Your task to perform on an android device: turn off airplane mode Image 0: 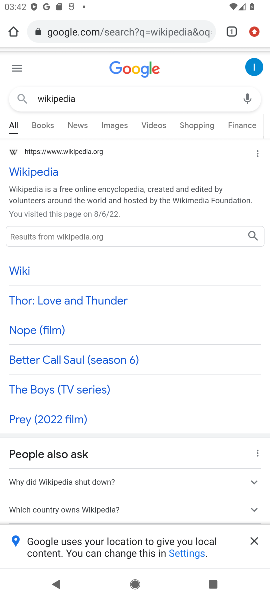
Step 0: press home button
Your task to perform on an android device: turn off airplane mode Image 1: 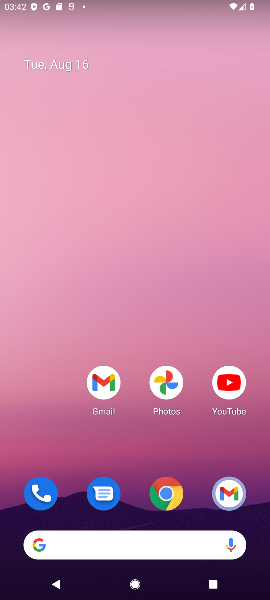
Step 1: drag from (67, 472) to (54, 71)
Your task to perform on an android device: turn off airplane mode Image 2: 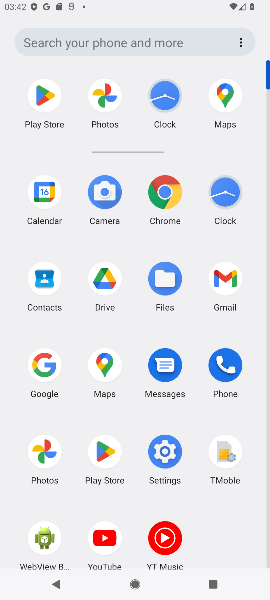
Step 2: click (165, 455)
Your task to perform on an android device: turn off airplane mode Image 3: 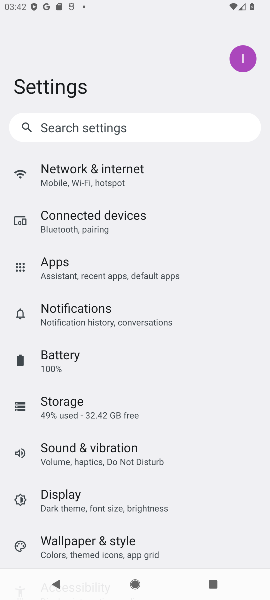
Step 3: drag from (215, 474) to (216, 397)
Your task to perform on an android device: turn off airplane mode Image 4: 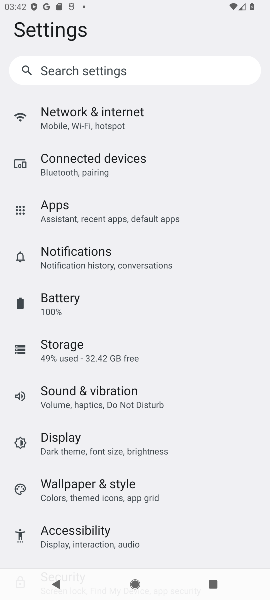
Step 4: drag from (225, 482) to (222, 402)
Your task to perform on an android device: turn off airplane mode Image 5: 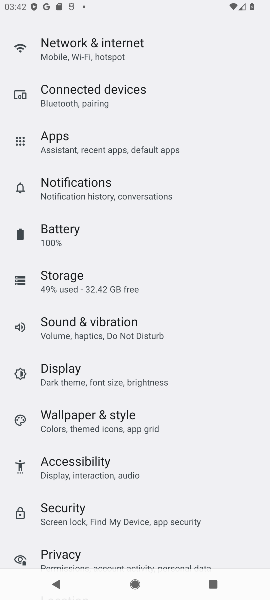
Step 5: drag from (221, 489) to (221, 353)
Your task to perform on an android device: turn off airplane mode Image 6: 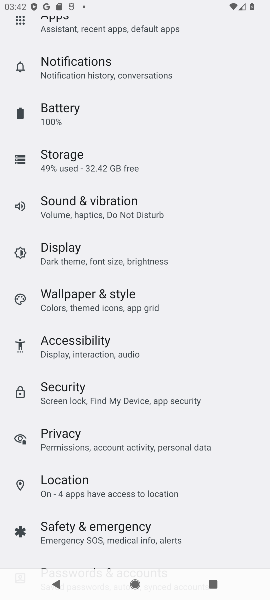
Step 6: drag from (222, 500) to (236, 373)
Your task to perform on an android device: turn off airplane mode Image 7: 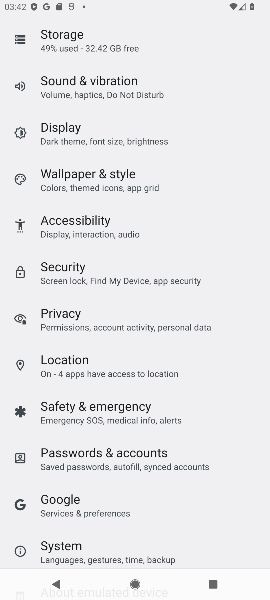
Step 7: drag from (224, 485) to (224, 292)
Your task to perform on an android device: turn off airplane mode Image 8: 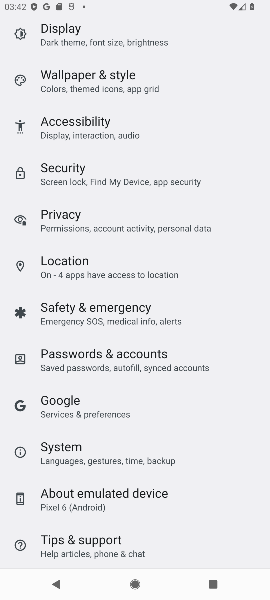
Step 8: drag from (230, 199) to (243, 316)
Your task to perform on an android device: turn off airplane mode Image 9: 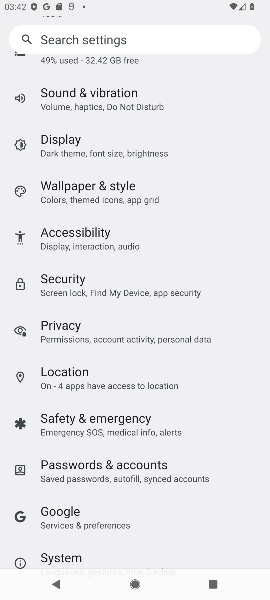
Step 9: drag from (230, 156) to (237, 280)
Your task to perform on an android device: turn off airplane mode Image 10: 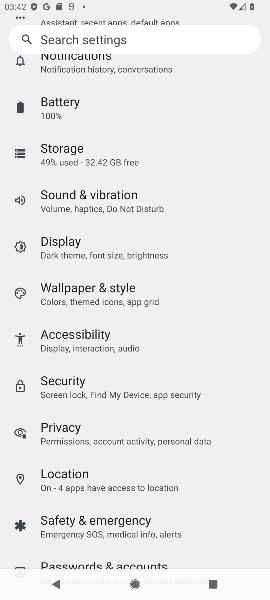
Step 10: drag from (223, 162) to (235, 249)
Your task to perform on an android device: turn off airplane mode Image 11: 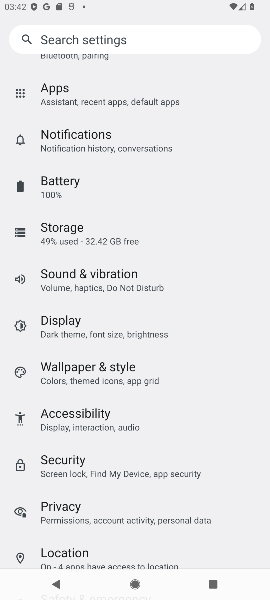
Step 11: drag from (226, 139) to (232, 265)
Your task to perform on an android device: turn off airplane mode Image 12: 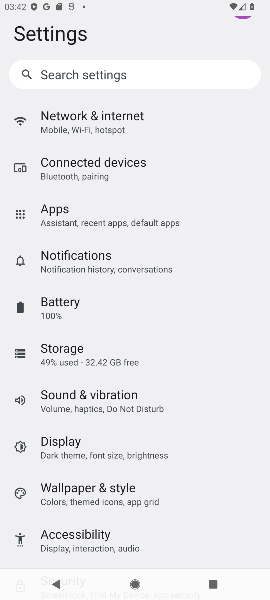
Step 12: drag from (227, 143) to (229, 253)
Your task to perform on an android device: turn off airplane mode Image 13: 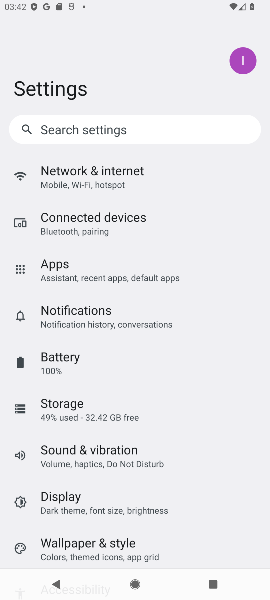
Step 13: click (142, 170)
Your task to perform on an android device: turn off airplane mode Image 14: 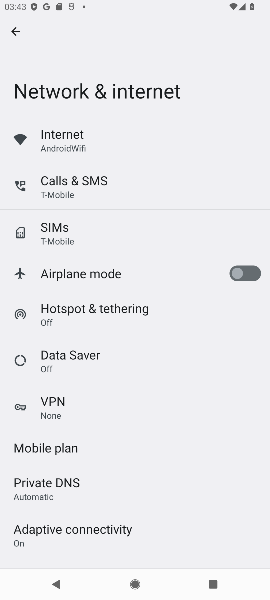
Step 14: task complete